Your task to perform on an android device: open a new tab in the chrome app Image 0: 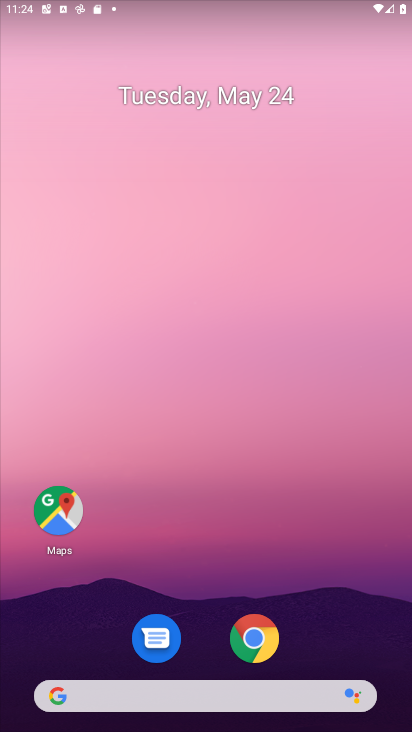
Step 0: click (251, 637)
Your task to perform on an android device: open a new tab in the chrome app Image 1: 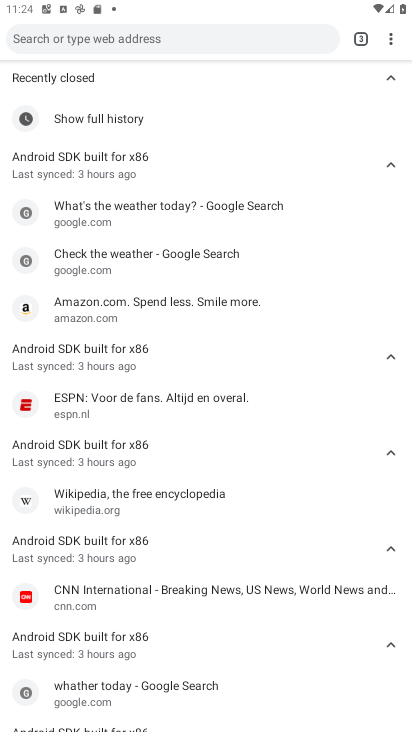
Step 1: click (390, 36)
Your task to perform on an android device: open a new tab in the chrome app Image 2: 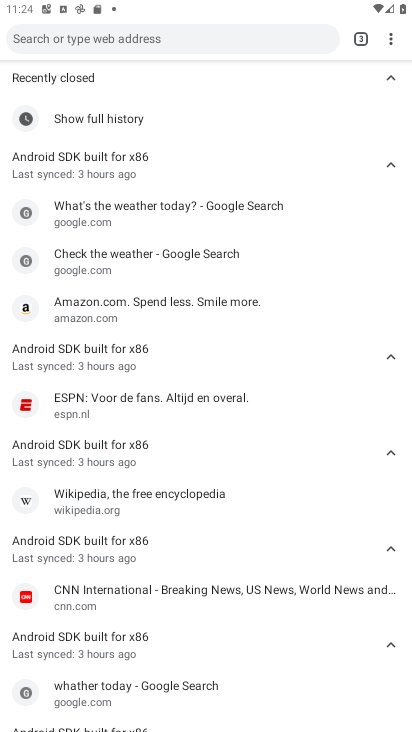
Step 2: click (390, 27)
Your task to perform on an android device: open a new tab in the chrome app Image 3: 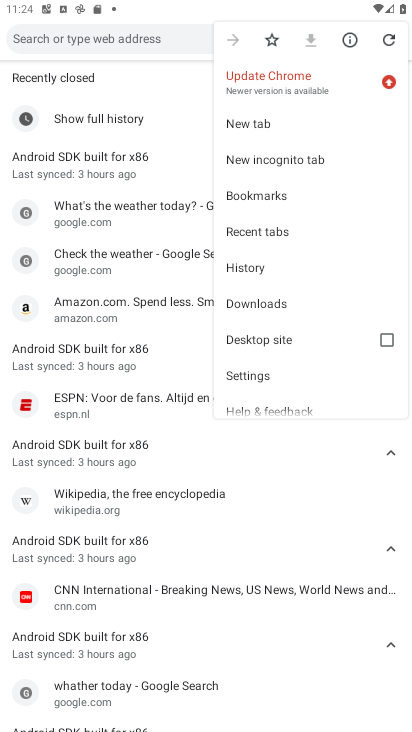
Step 3: click (280, 129)
Your task to perform on an android device: open a new tab in the chrome app Image 4: 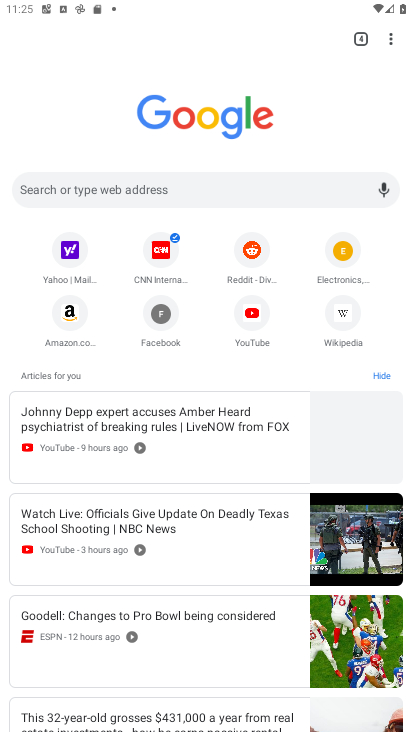
Step 4: task complete